Your task to perform on an android device: turn on wifi Image 0: 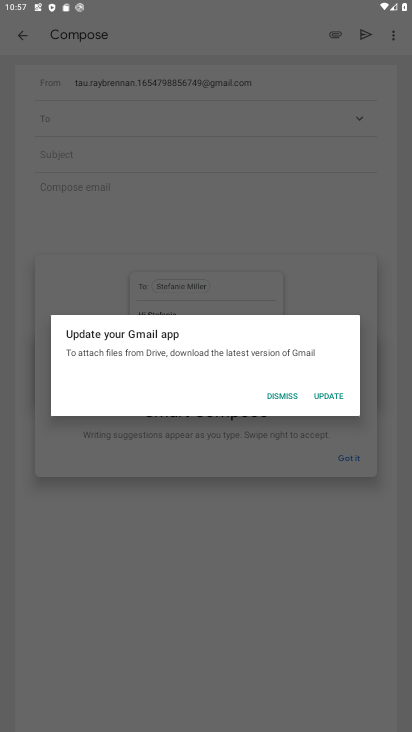
Step 0: press home button
Your task to perform on an android device: turn on wifi Image 1: 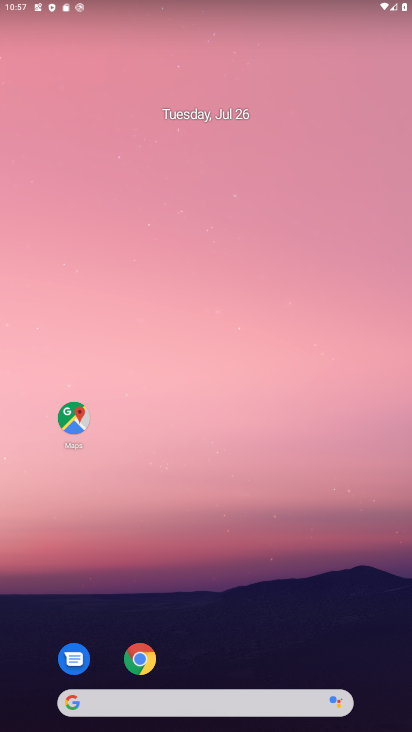
Step 1: drag from (163, 704) to (278, 247)
Your task to perform on an android device: turn on wifi Image 2: 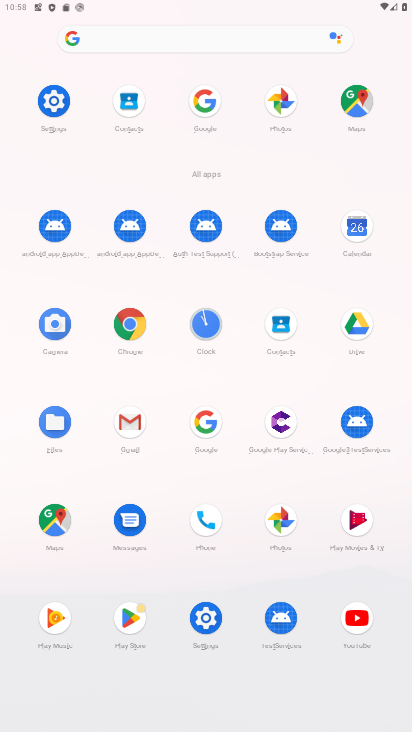
Step 2: click (207, 619)
Your task to perform on an android device: turn on wifi Image 3: 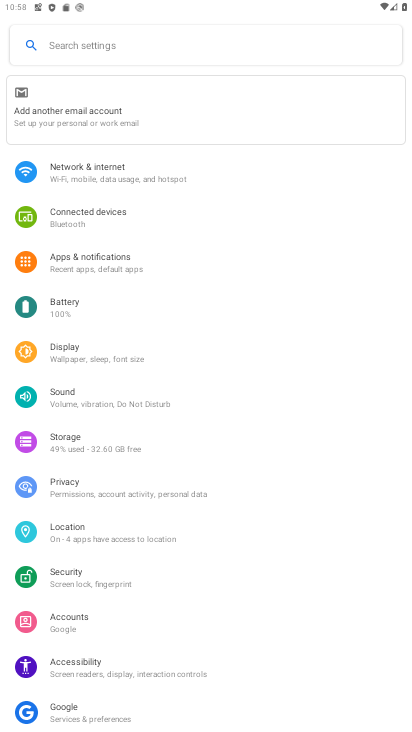
Step 3: click (96, 172)
Your task to perform on an android device: turn on wifi Image 4: 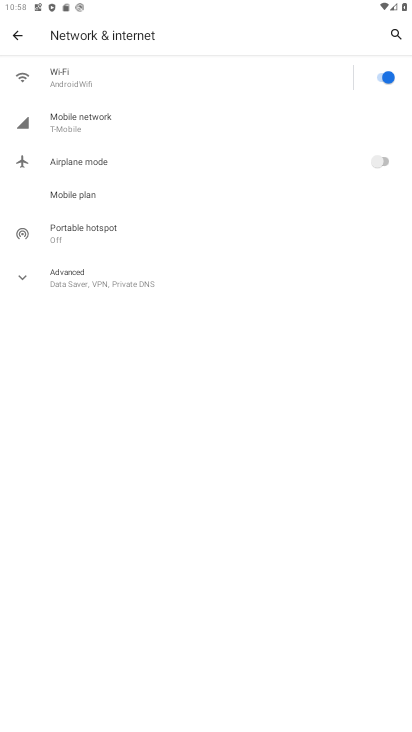
Step 4: task complete